Your task to perform on an android device: manage bookmarks in the chrome app Image 0: 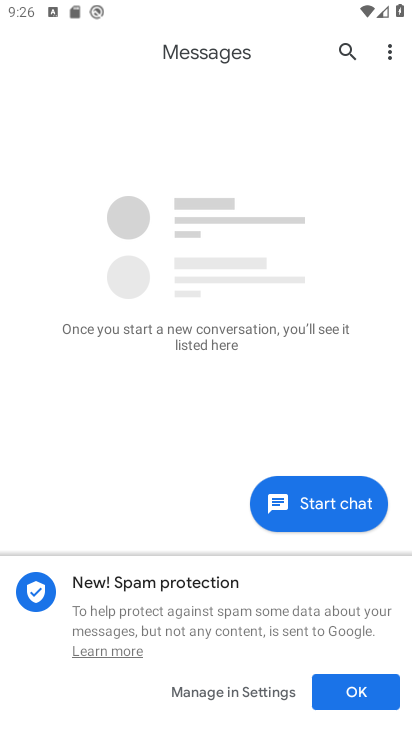
Step 0: drag from (403, 255) to (325, 48)
Your task to perform on an android device: manage bookmarks in the chrome app Image 1: 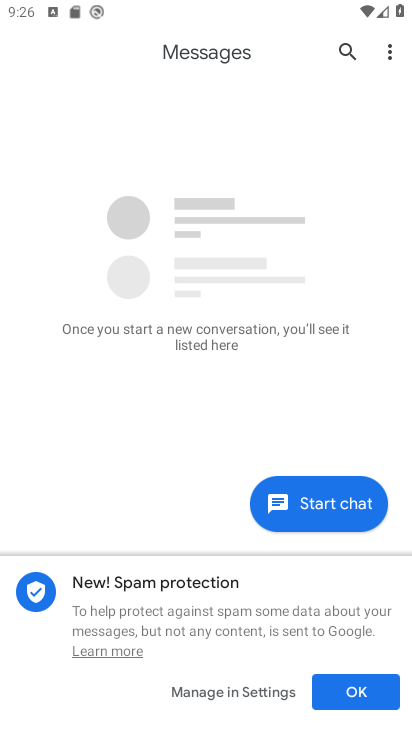
Step 1: click (357, 691)
Your task to perform on an android device: manage bookmarks in the chrome app Image 2: 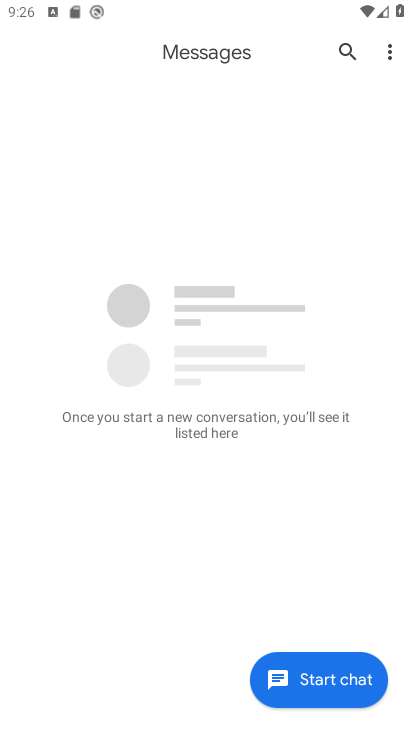
Step 2: drag from (241, 655) to (286, 236)
Your task to perform on an android device: manage bookmarks in the chrome app Image 3: 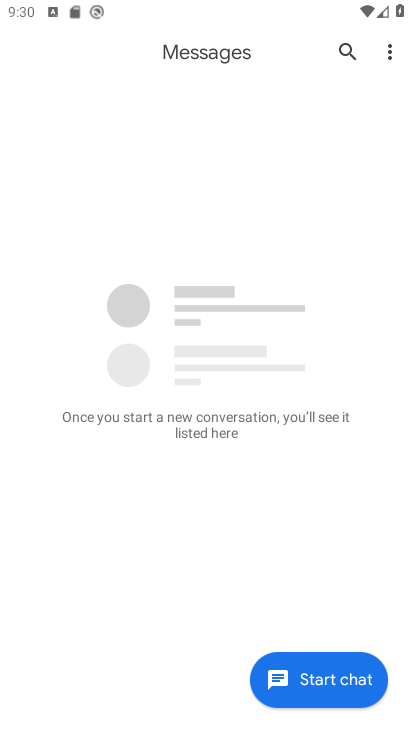
Step 3: press home button
Your task to perform on an android device: manage bookmarks in the chrome app Image 4: 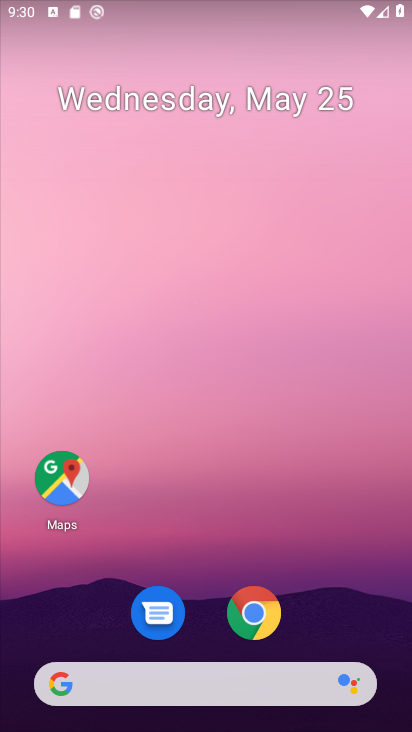
Step 4: drag from (115, 667) to (204, 12)
Your task to perform on an android device: manage bookmarks in the chrome app Image 5: 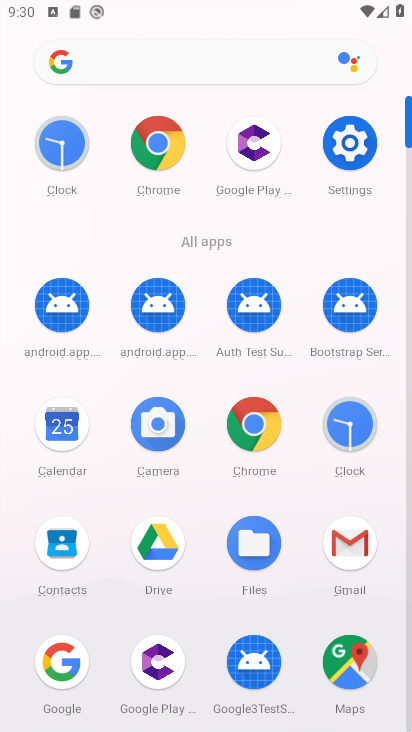
Step 5: click (253, 415)
Your task to perform on an android device: manage bookmarks in the chrome app Image 6: 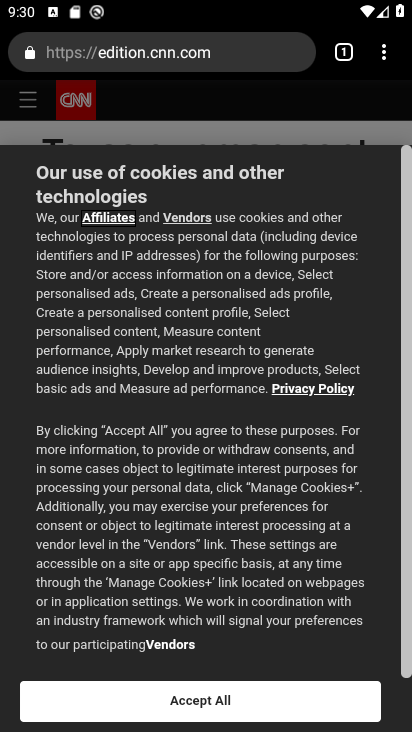
Step 6: drag from (384, 57) to (386, 251)
Your task to perform on an android device: manage bookmarks in the chrome app Image 7: 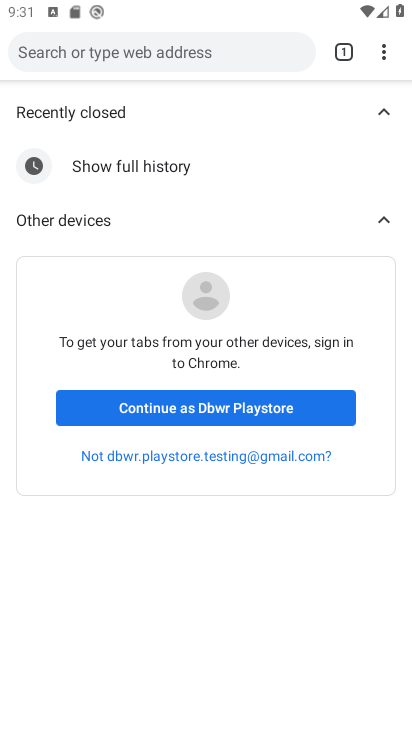
Step 7: press home button
Your task to perform on an android device: manage bookmarks in the chrome app Image 8: 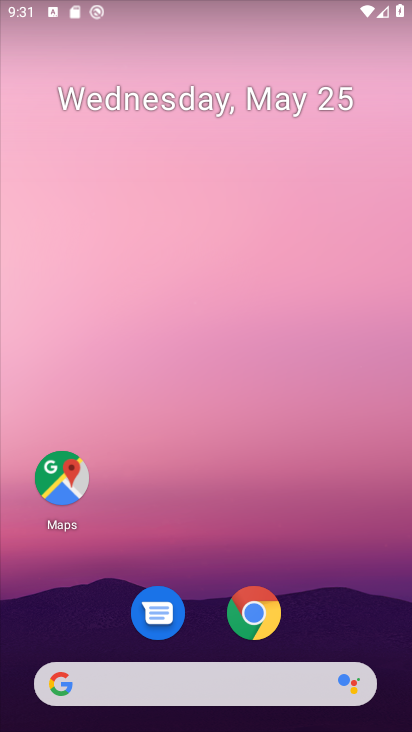
Step 8: drag from (257, 520) to (339, 0)
Your task to perform on an android device: manage bookmarks in the chrome app Image 9: 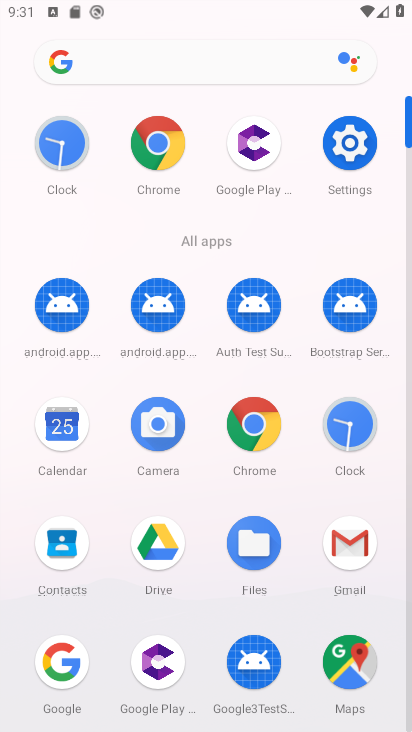
Step 9: click (275, 435)
Your task to perform on an android device: manage bookmarks in the chrome app Image 10: 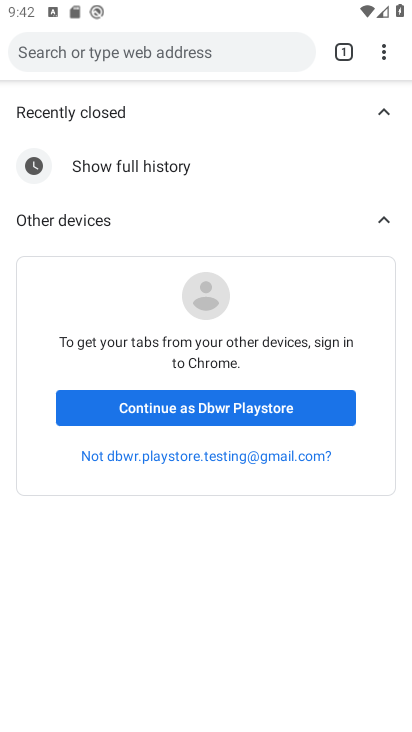
Step 10: task complete